Your task to perform on an android device: Go to network settings Image 0: 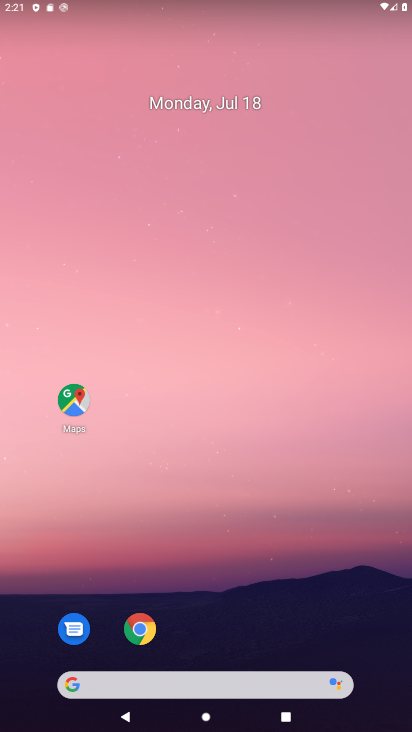
Step 0: drag from (160, 600) to (149, 234)
Your task to perform on an android device: Go to network settings Image 1: 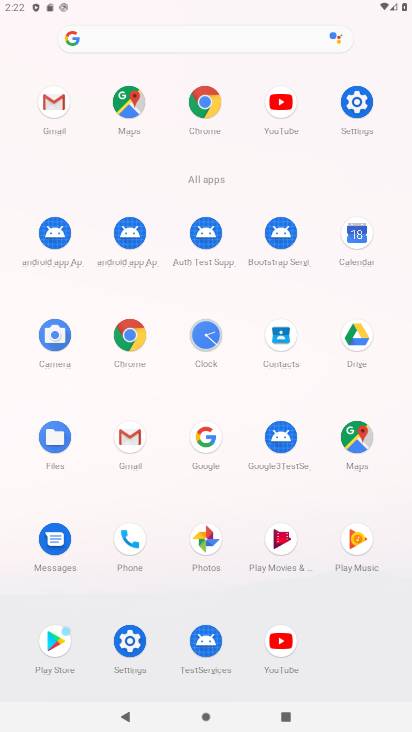
Step 1: click (355, 106)
Your task to perform on an android device: Go to network settings Image 2: 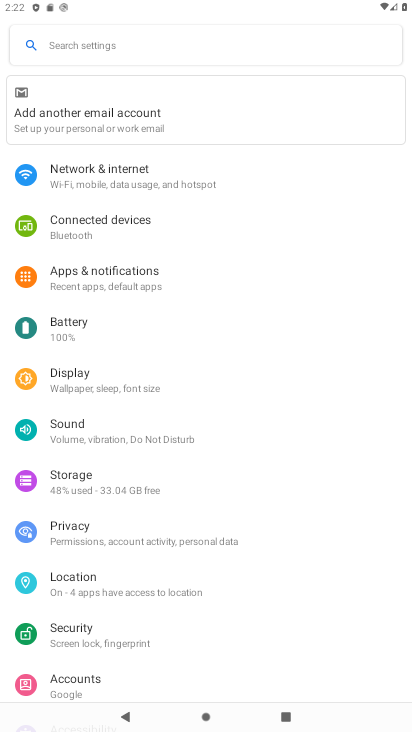
Step 2: click (63, 179)
Your task to perform on an android device: Go to network settings Image 3: 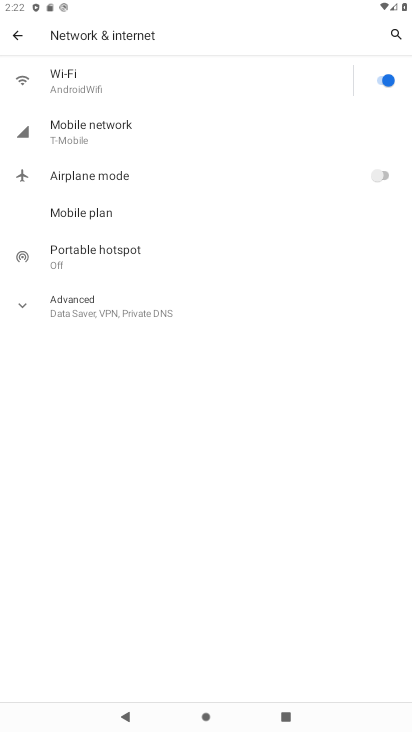
Step 3: click (102, 300)
Your task to perform on an android device: Go to network settings Image 4: 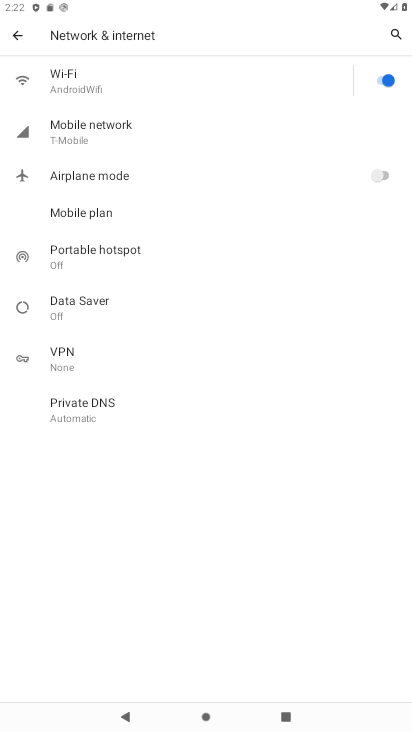
Step 4: task complete